Your task to perform on an android device: Go to settings Image 0: 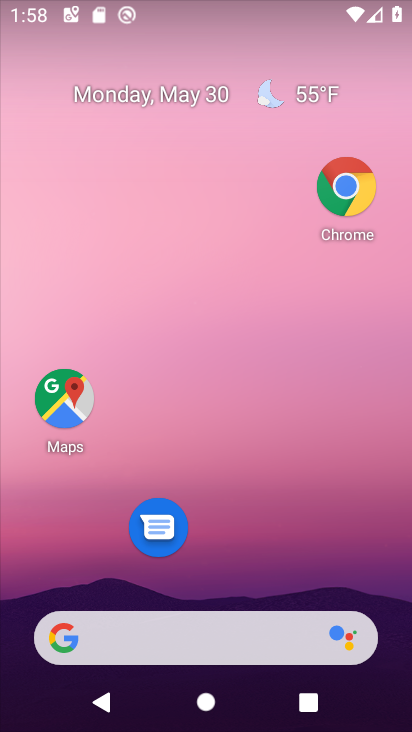
Step 0: drag from (210, 540) to (236, 258)
Your task to perform on an android device: Go to settings Image 1: 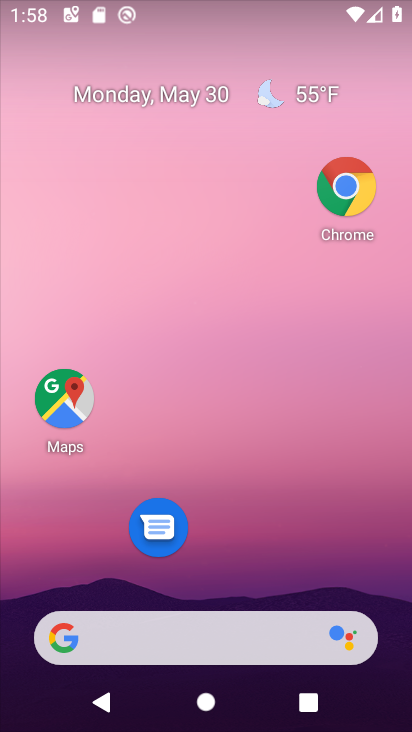
Step 1: drag from (206, 589) to (220, 224)
Your task to perform on an android device: Go to settings Image 2: 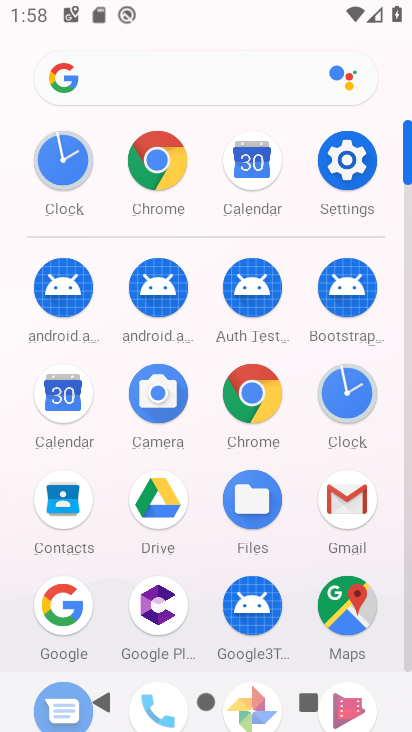
Step 2: click (353, 146)
Your task to perform on an android device: Go to settings Image 3: 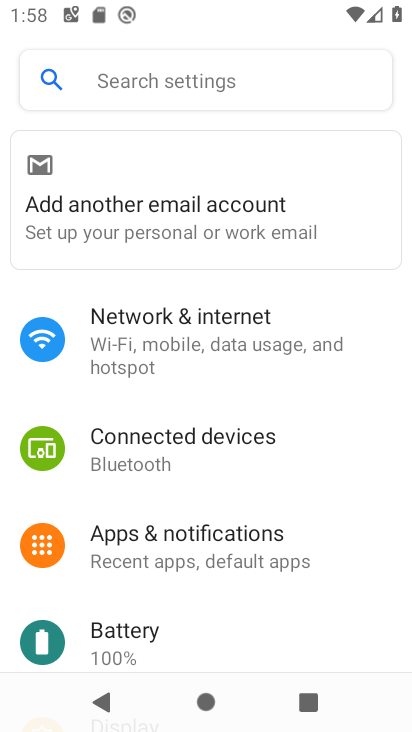
Step 3: task complete